Your task to perform on an android device: turn pop-ups off in chrome Image 0: 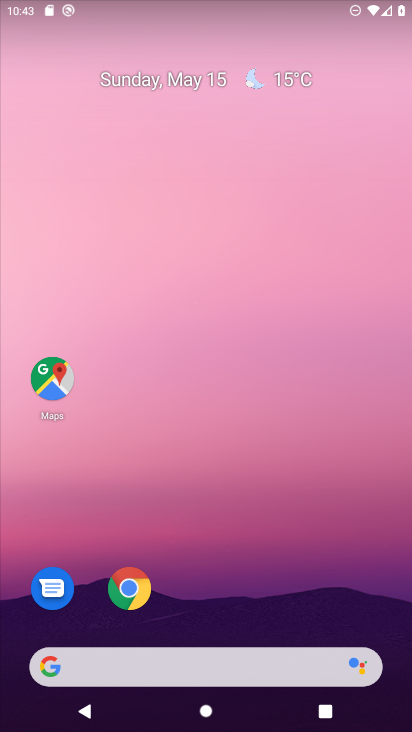
Step 0: drag from (235, 623) to (273, 139)
Your task to perform on an android device: turn pop-ups off in chrome Image 1: 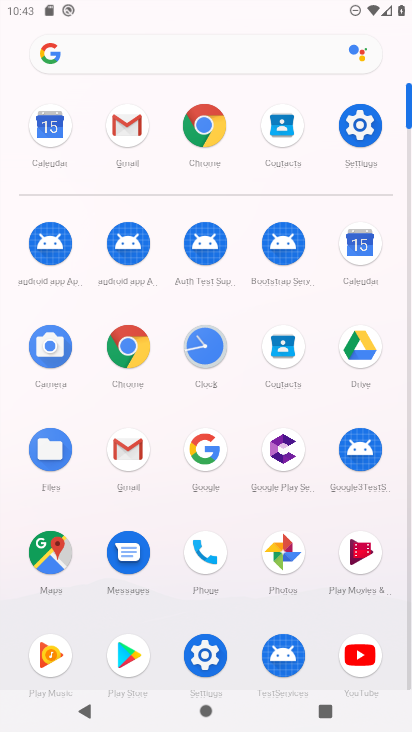
Step 1: click (128, 351)
Your task to perform on an android device: turn pop-ups off in chrome Image 2: 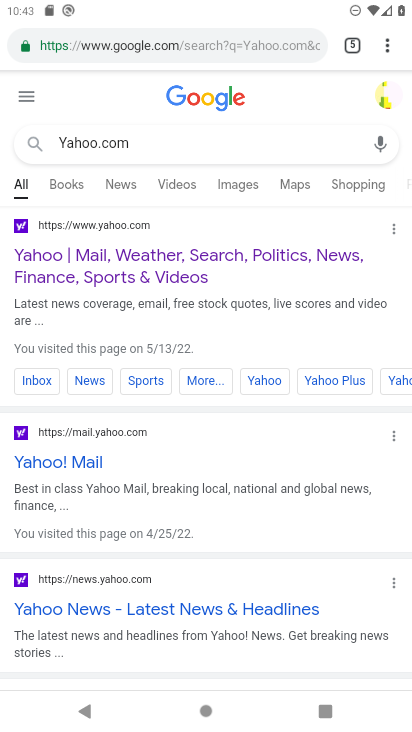
Step 2: click (391, 53)
Your task to perform on an android device: turn pop-ups off in chrome Image 3: 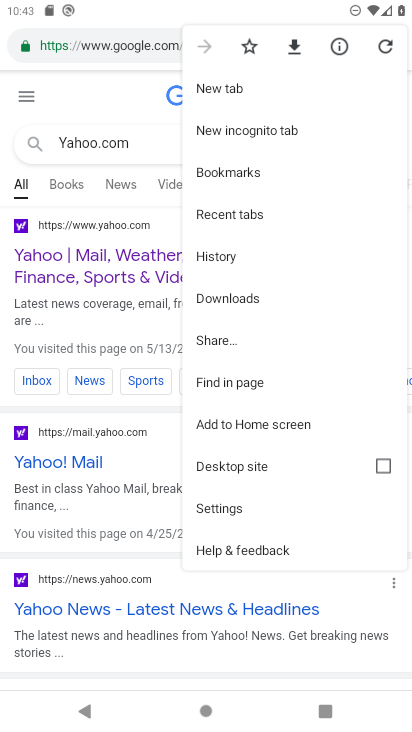
Step 3: click (240, 509)
Your task to perform on an android device: turn pop-ups off in chrome Image 4: 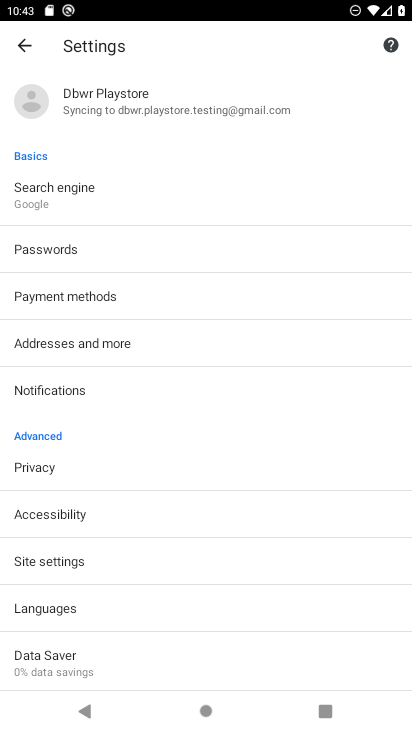
Step 4: click (70, 569)
Your task to perform on an android device: turn pop-ups off in chrome Image 5: 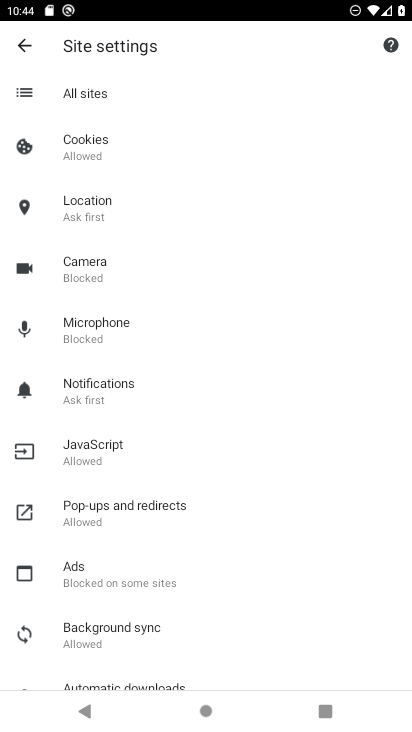
Step 5: click (115, 521)
Your task to perform on an android device: turn pop-ups off in chrome Image 6: 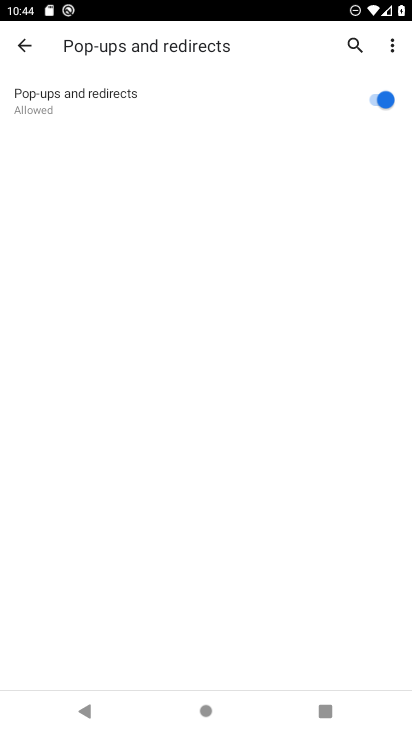
Step 6: click (365, 98)
Your task to perform on an android device: turn pop-ups off in chrome Image 7: 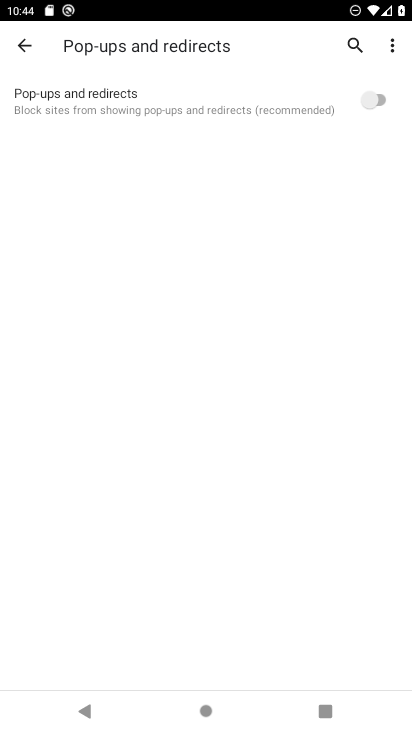
Step 7: task complete